Your task to perform on an android device: turn pop-ups off in chrome Image 0: 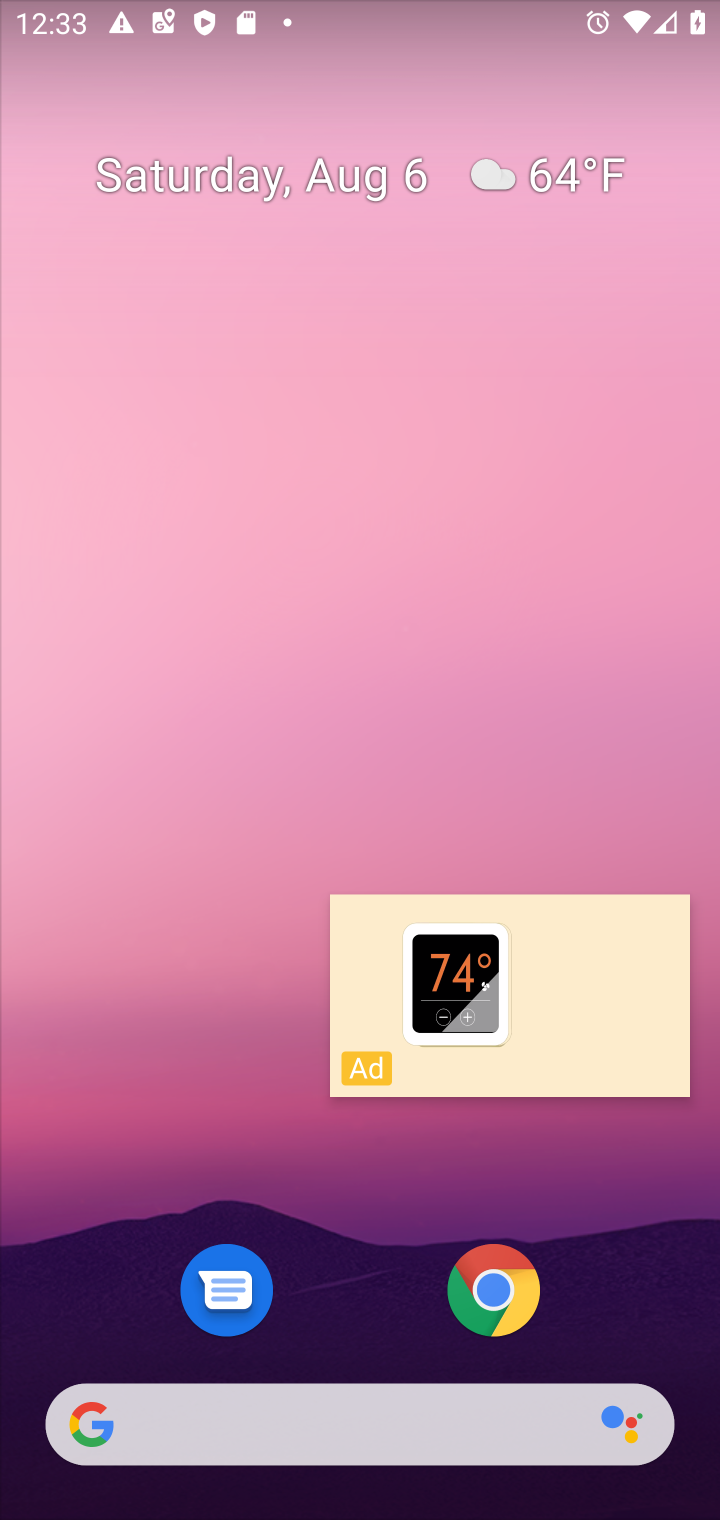
Step 0: press home button
Your task to perform on an android device: turn pop-ups off in chrome Image 1: 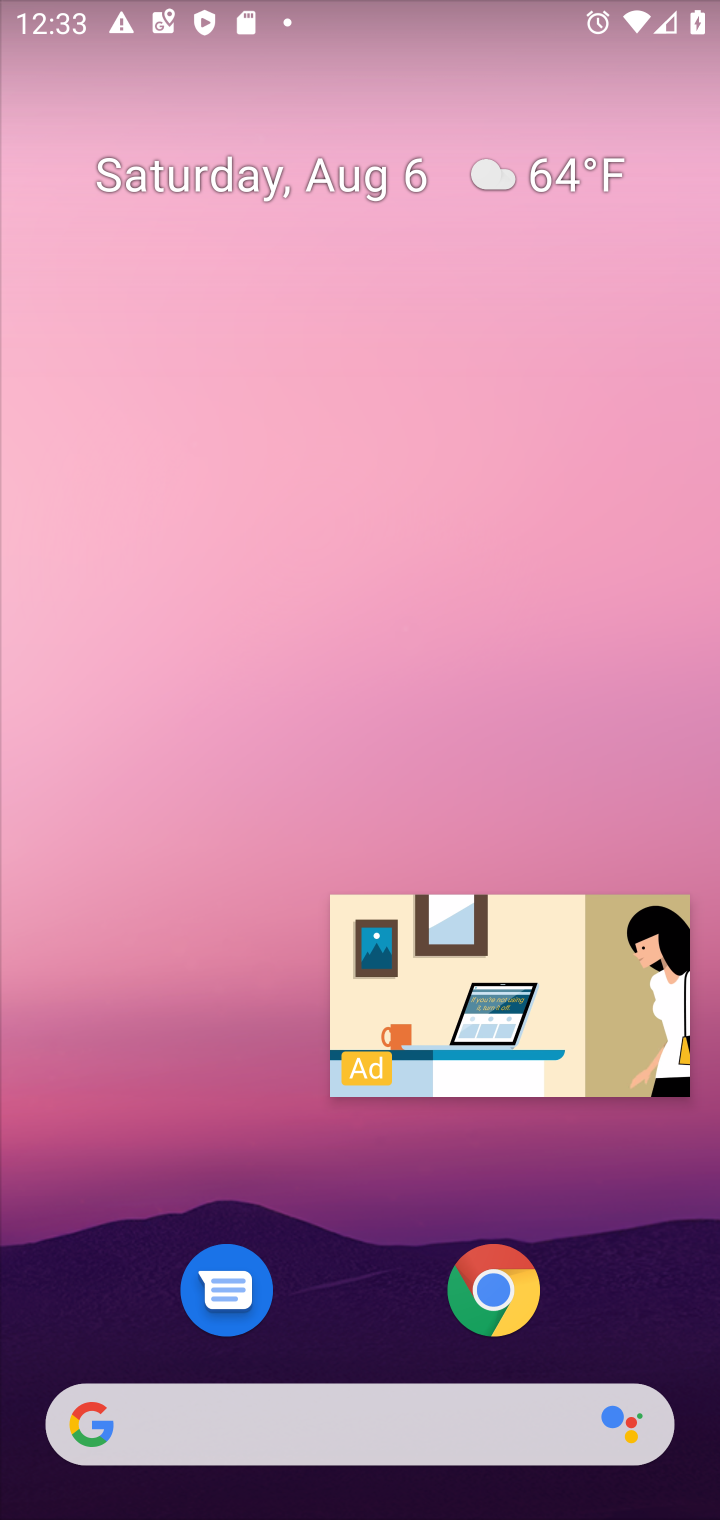
Step 1: click (603, 957)
Your task to perform on an android device: turn pop-ups off in chrome Image 2: 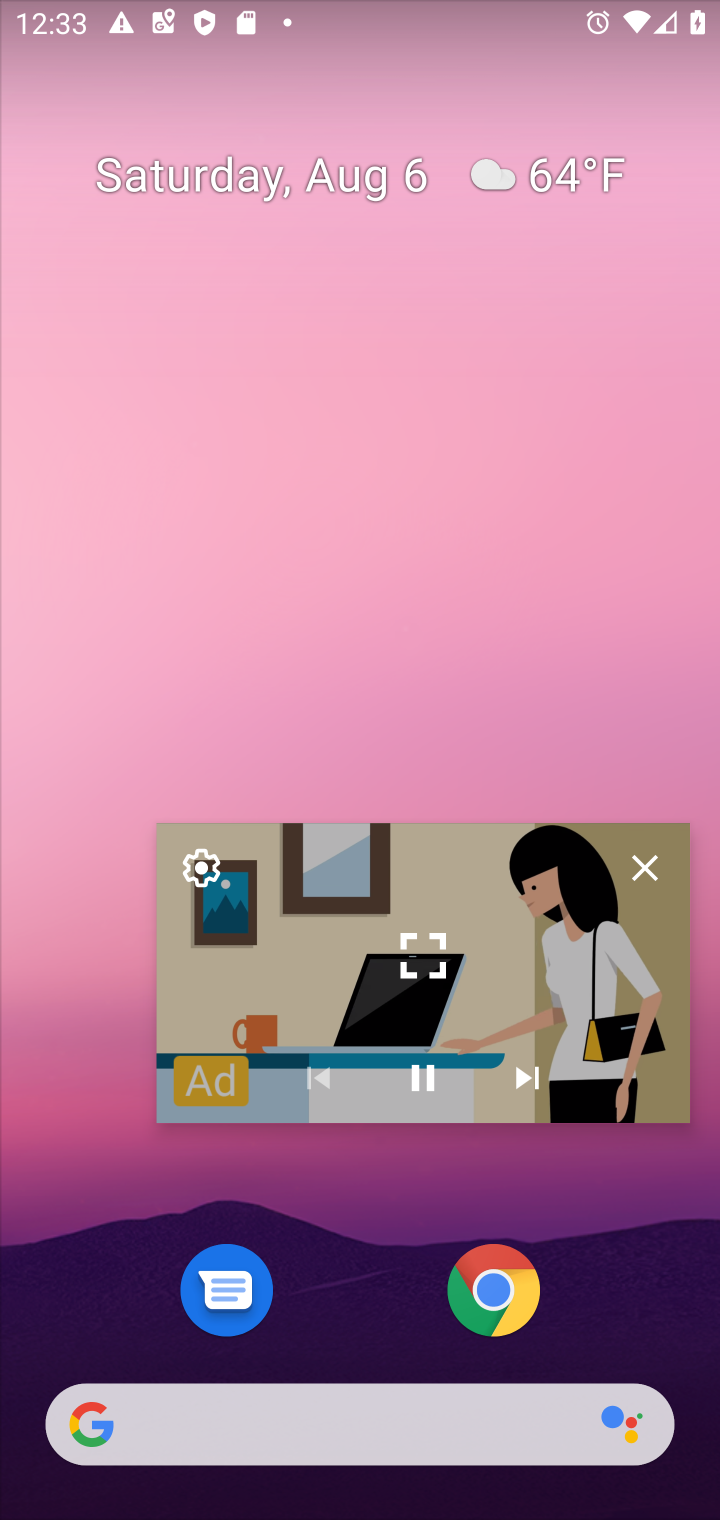
Step 2: click (655, 865)
Your task to perform on an android device: turn pop-ups off in chrome Image 3: 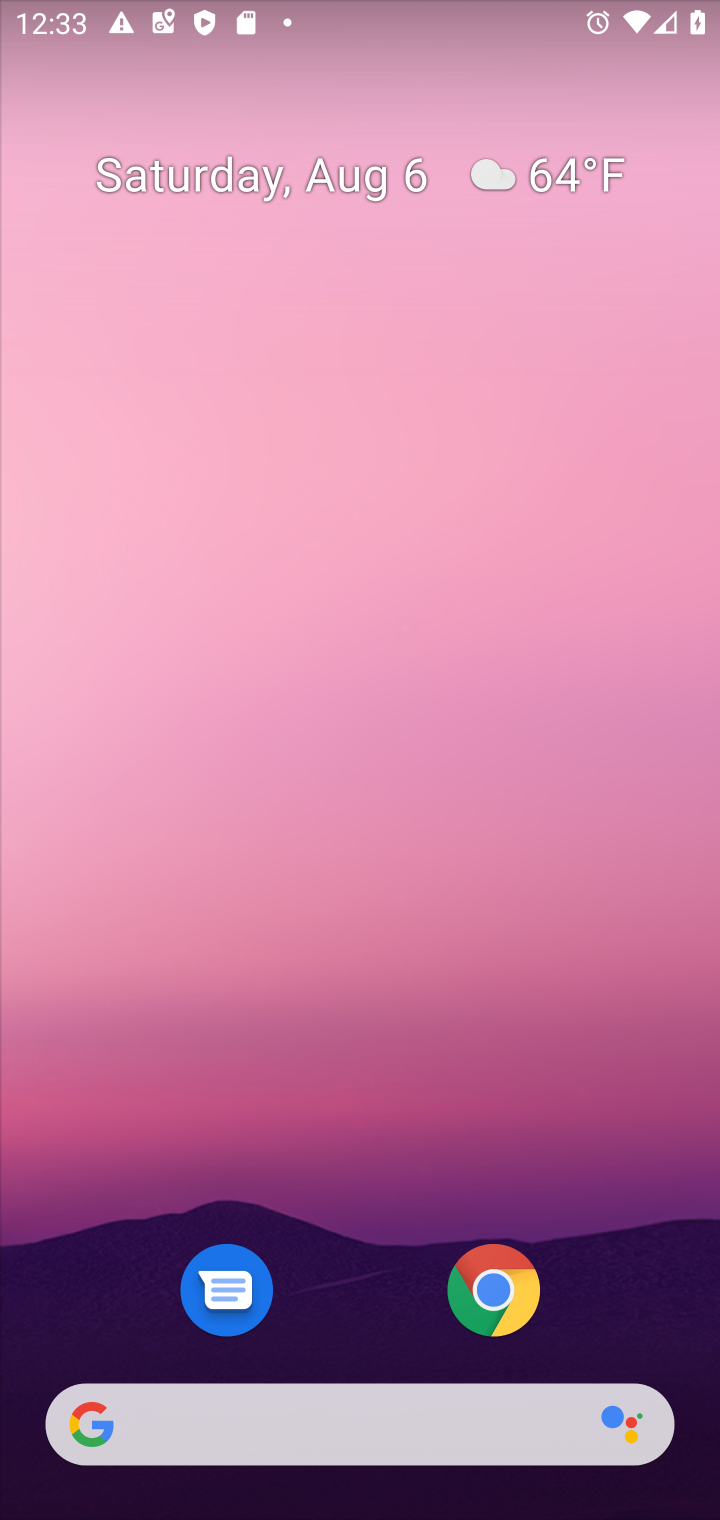
Step 3: click (487, 1274)
Your task to perform on an android device: turn pop-ups off in chrome Image 4: 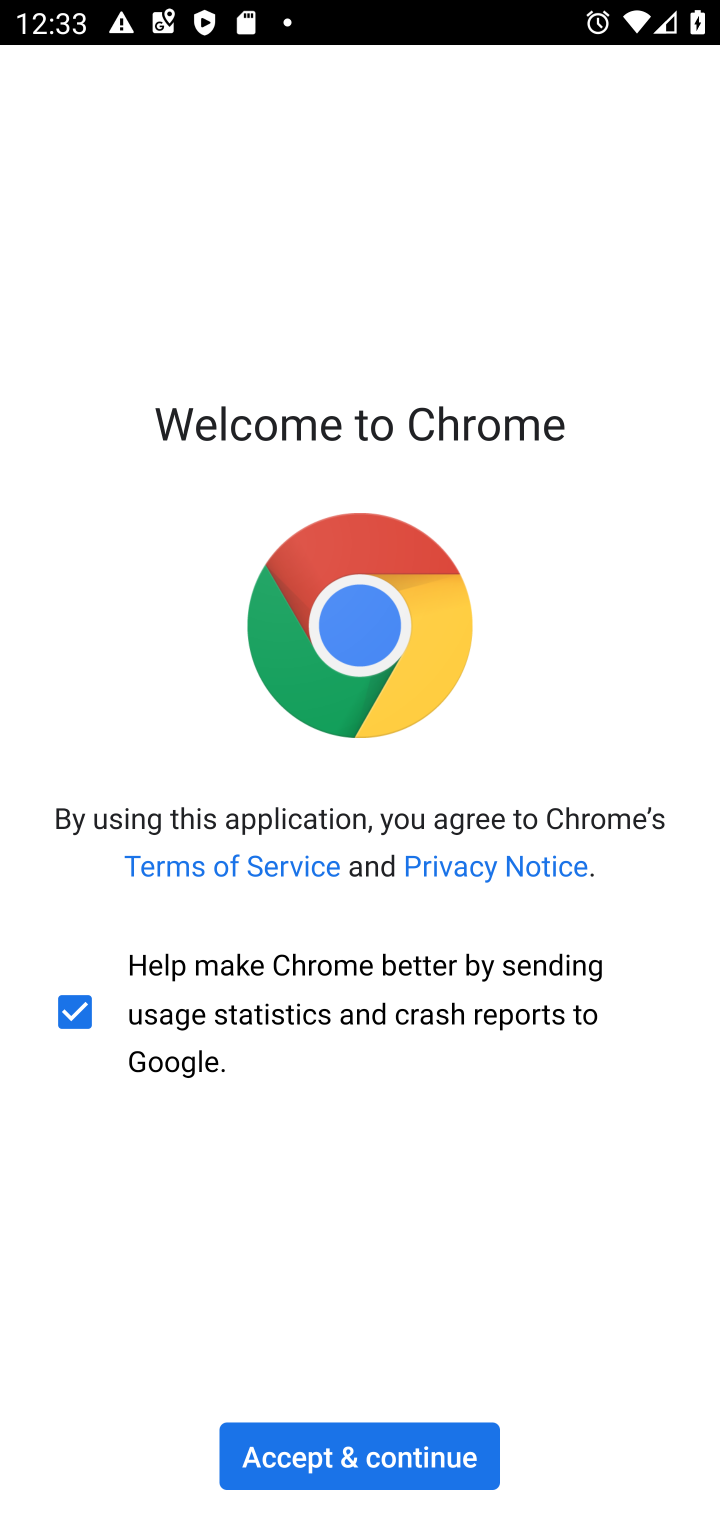
Step 4: click (371, 1445)
Your task to perform on an android device: turn pop-ups off in chrome Image 5: 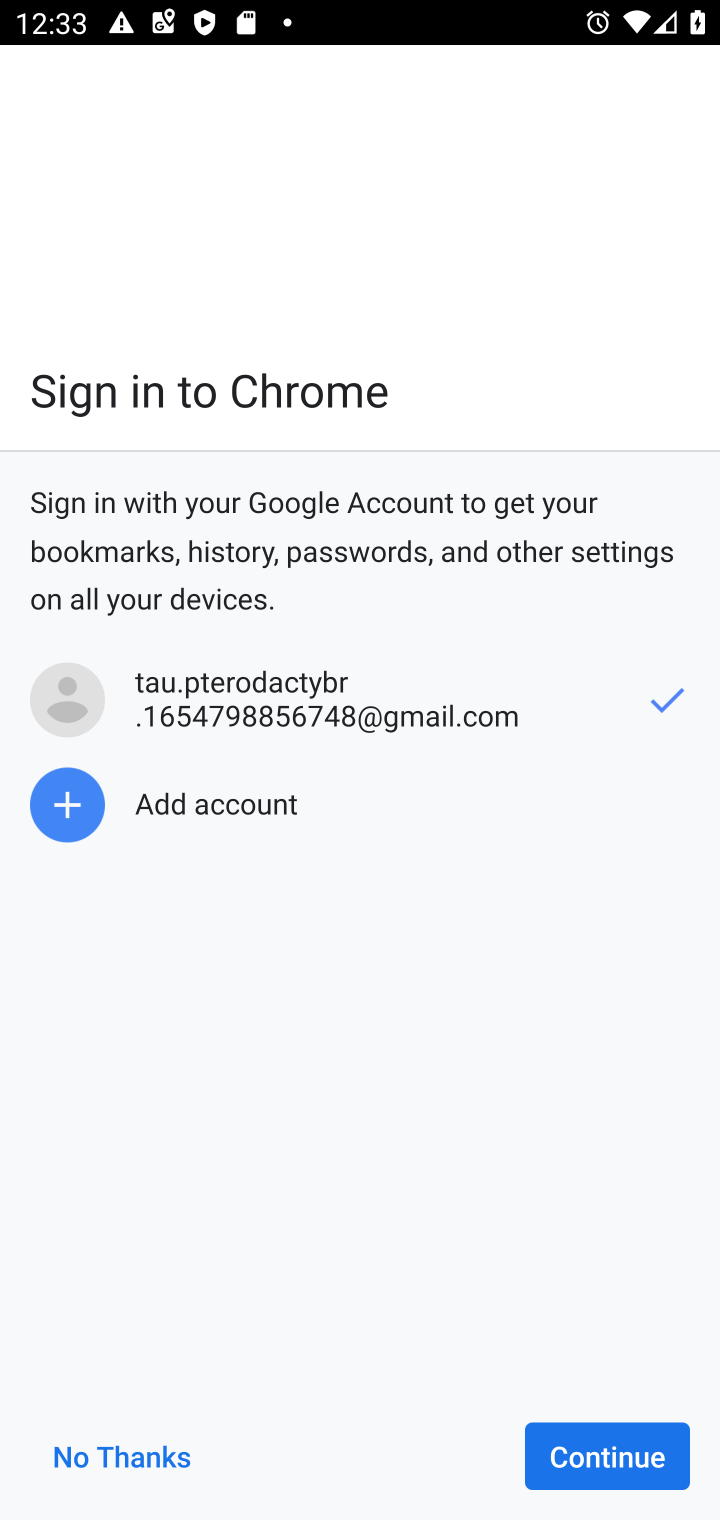
Step 5: click (614, 1454)
Your task to perform on an android device: turn pop-ups off in chrome Image 6: 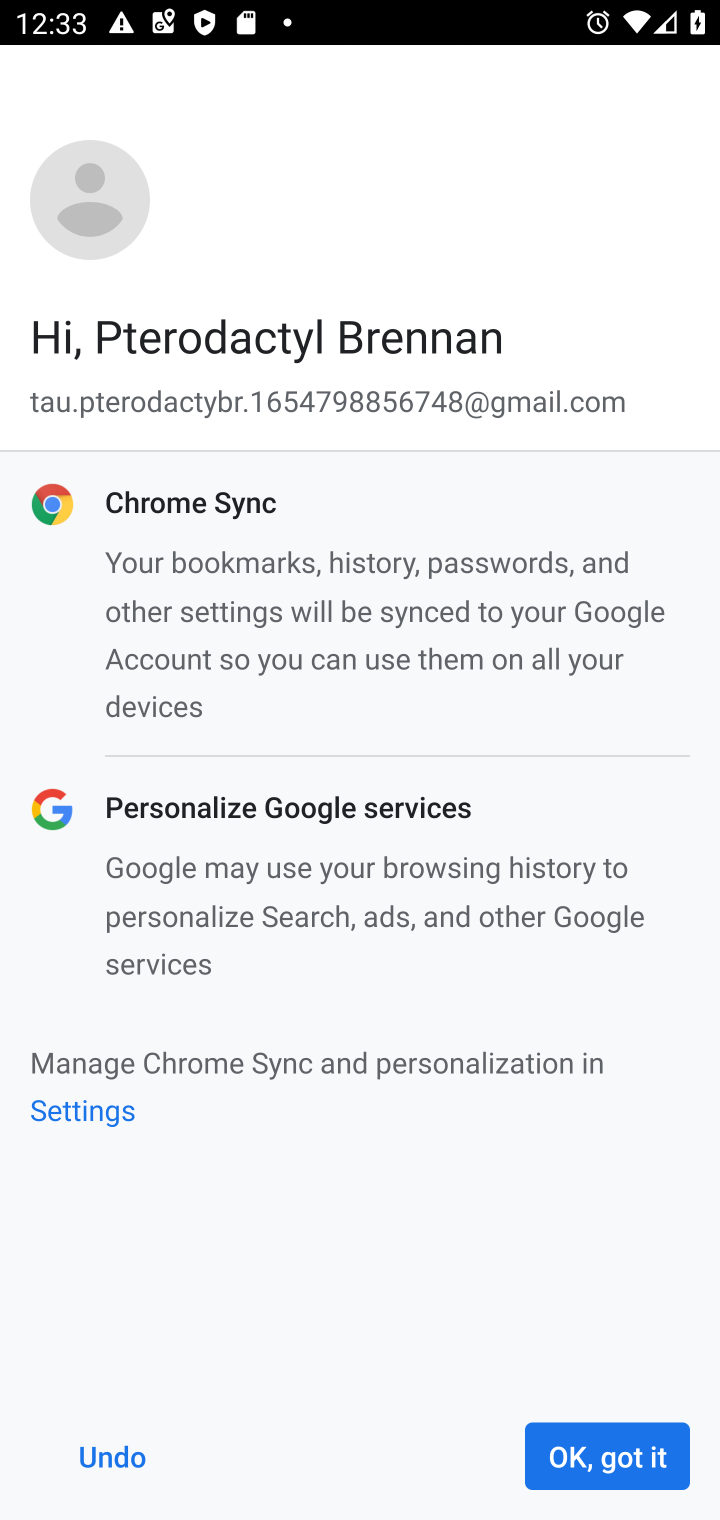
Step 6: click (614, 1454)
Your task to perform on an android device: turn pop-ups off in chrome Image 7: 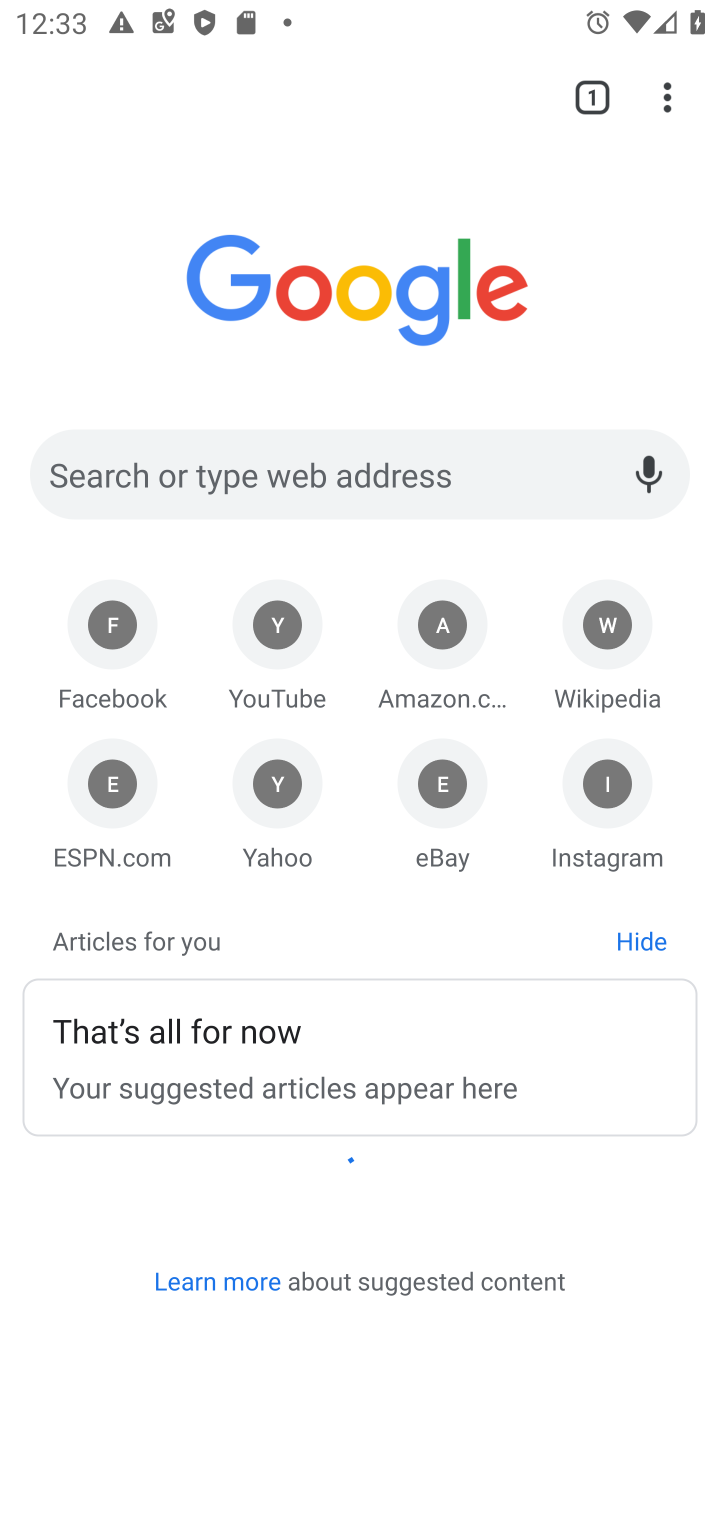
Step 7: click (663, 81)
Your task to perform on an android device: turn pop-ups off in chrome Image 8: 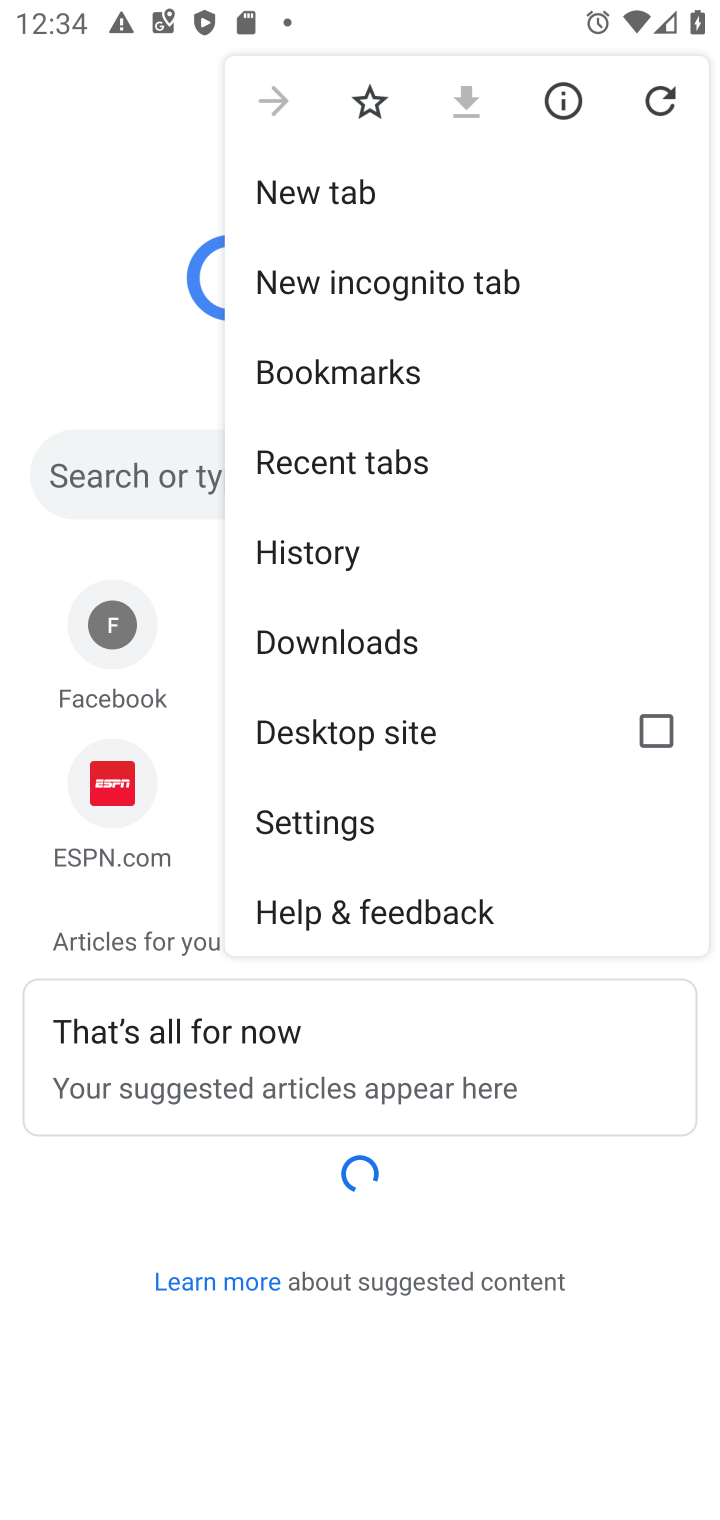
Step 8: click (369, 809)
Your task to perform on an android device: turn pop-ups off in chrome Image 9: 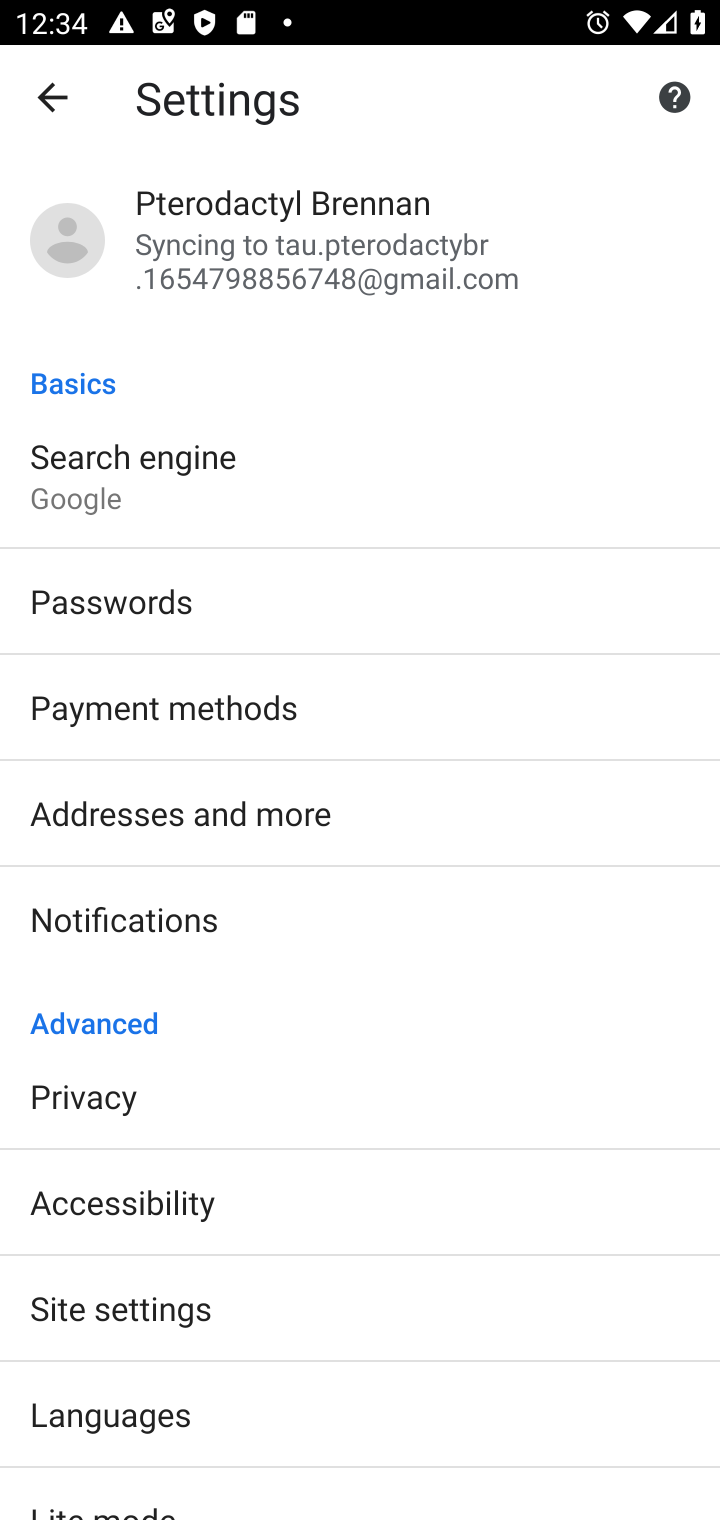
Step 9: click (245, 1302)
Your task to perform on an android device: turn pop-ups off in chrome Image 10: 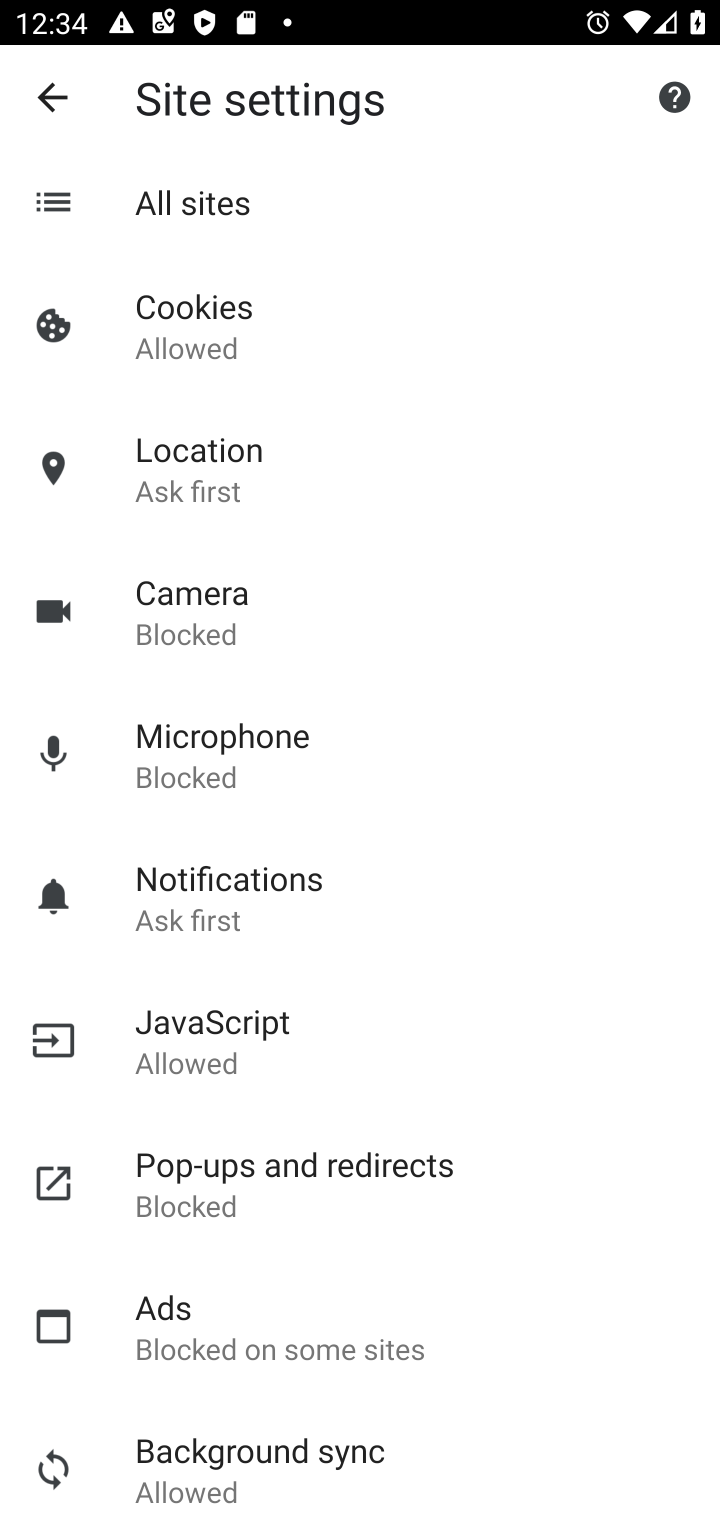
Step 10: click (295, 1185)
Your task to perform on an android device: turn pop-ups off in chrome Image 11: 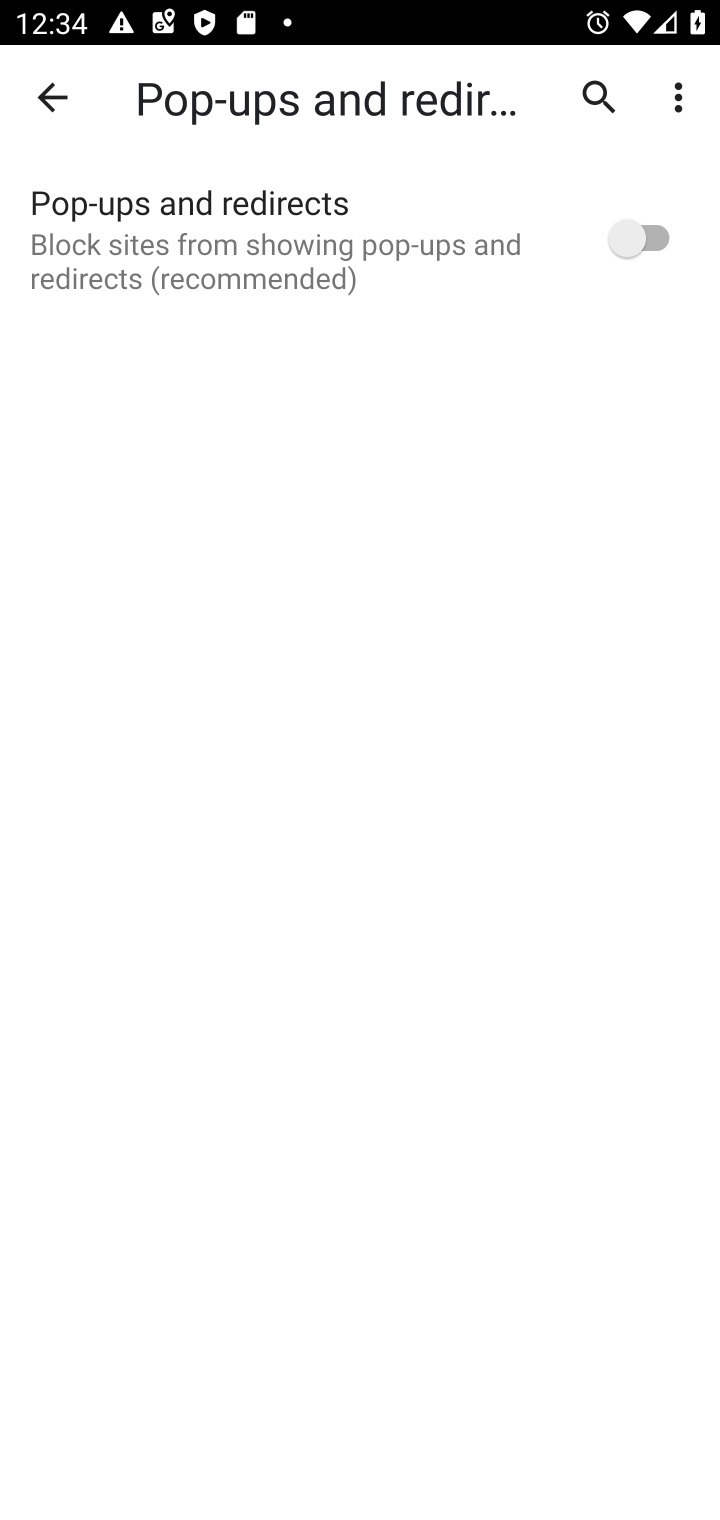
Step 11: task complete